Your task to perform on an android device: move a message to another label in the gmail app Image 0: 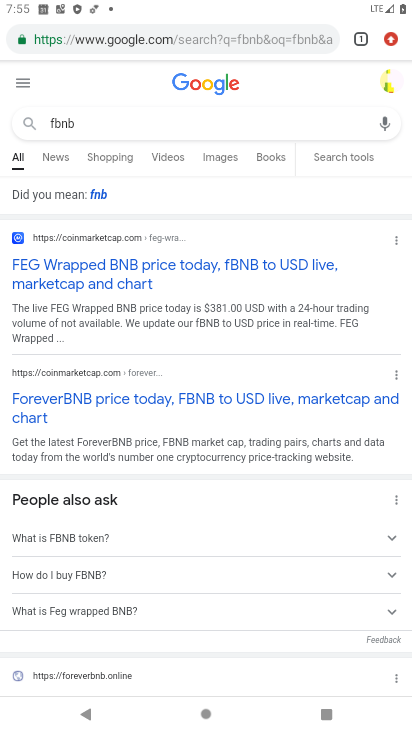
Step 0: press home button
Your task to perform on an android device: move a message to another label in the gmail app Image 1: 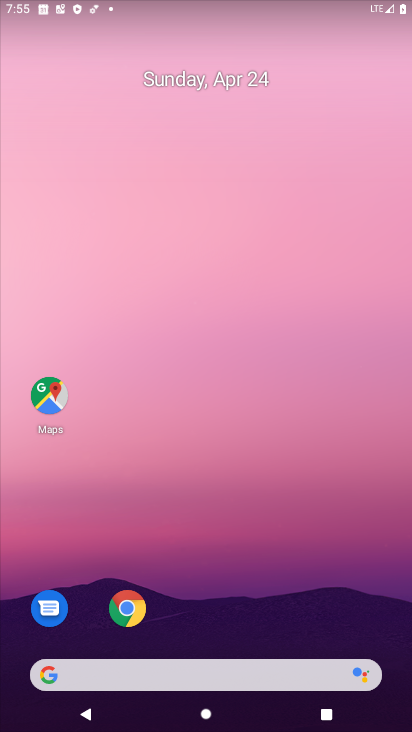
Step 1: drag from (186, 659) to (197, 112)
Your task to perform on an android device: move a message to another label in the gmail app Image 2: 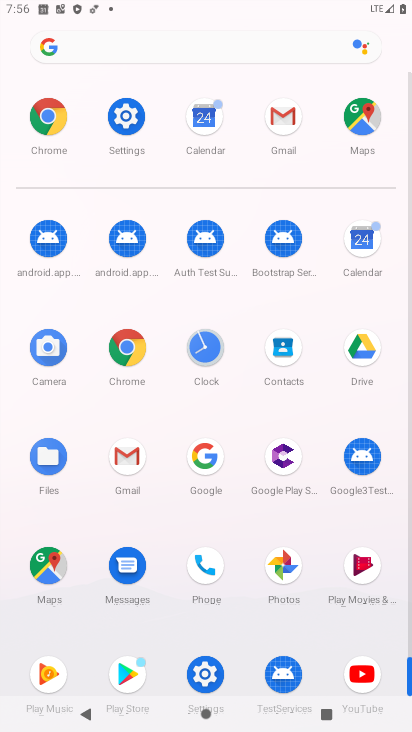
Step 2: click (281, 111)
Your task to perform on an android device: move a message to another label in the gmail app Image 3: 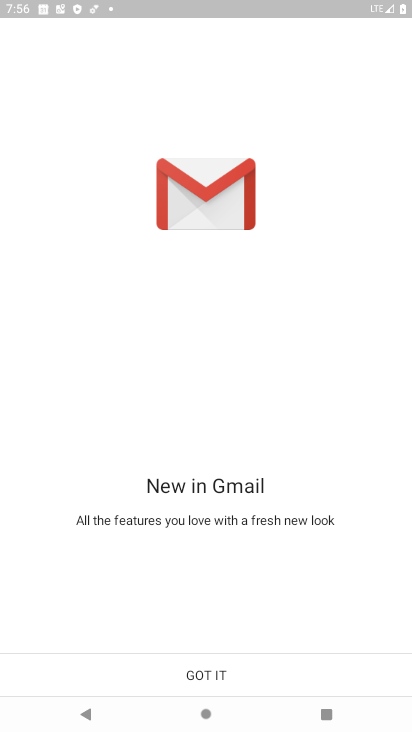
Step 3: click (259, 693)
Your task to perform on an android device: move a message to another label in the gmail app Image 4: 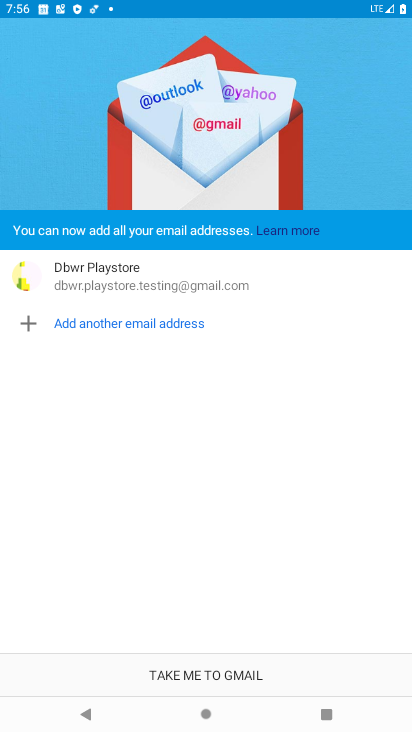
Step 4: click (258, 692)
Your task to perform on an android device: move a message to another label in the gmail app Image 5: 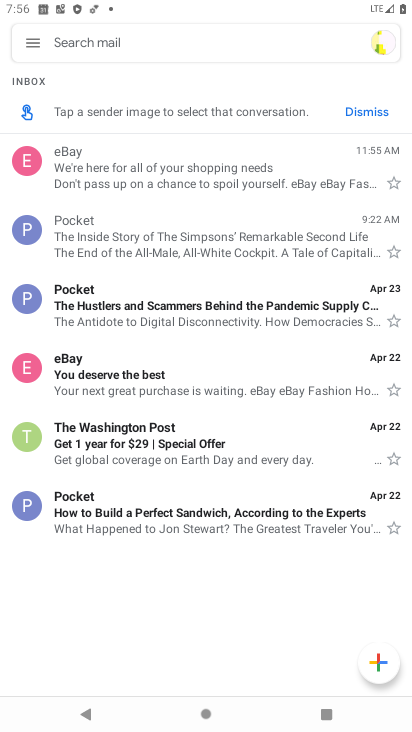
Step 5: click (29, 38)
Your task to perform on an android device: move a message to another label in the gmail app Image 6: 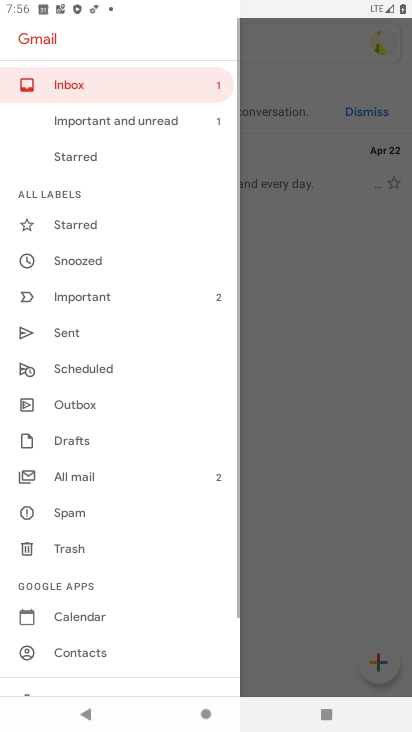
Step 6: click (374, 338)
Your task to perform on an android device: move a message to another label in the gmail app Image 7: 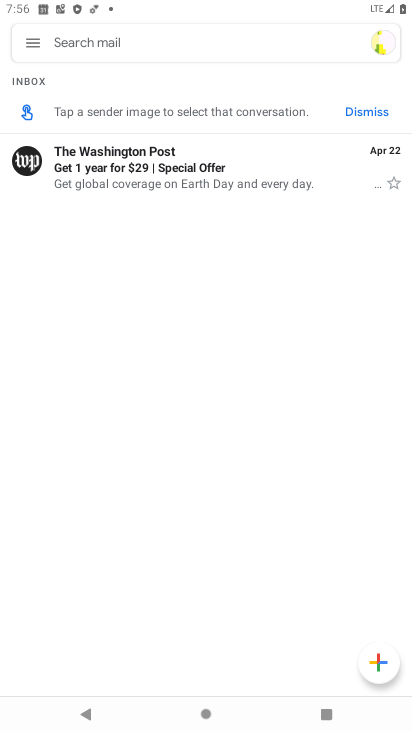
Step 7: click (289, 173)
Your task to perform on an android device: move a message to another label in the gmail app Image 8: 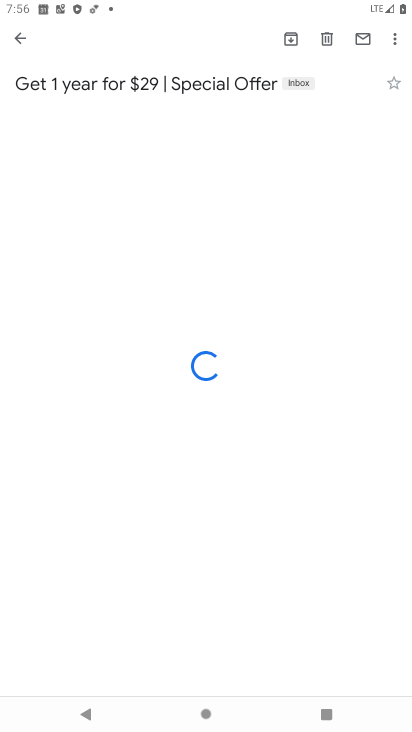
Step 8: click (394, 42)
Your task to perform on an android device: move a message to another label in the gmail app Image 9: 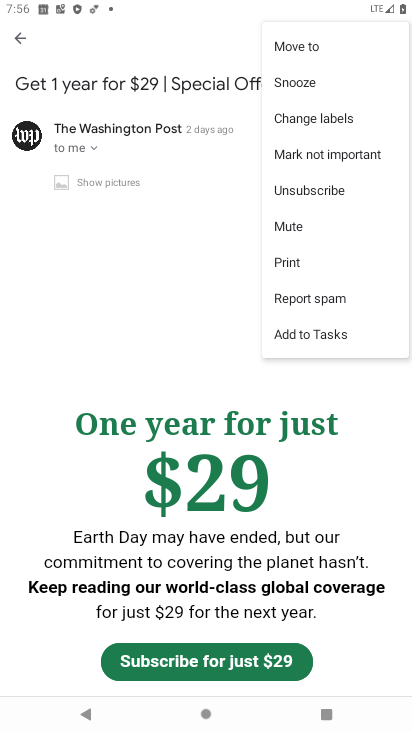
Step 9: click (330, 37)
Your task to perform on an android device: move a message to another label in the gmail app Image 10: 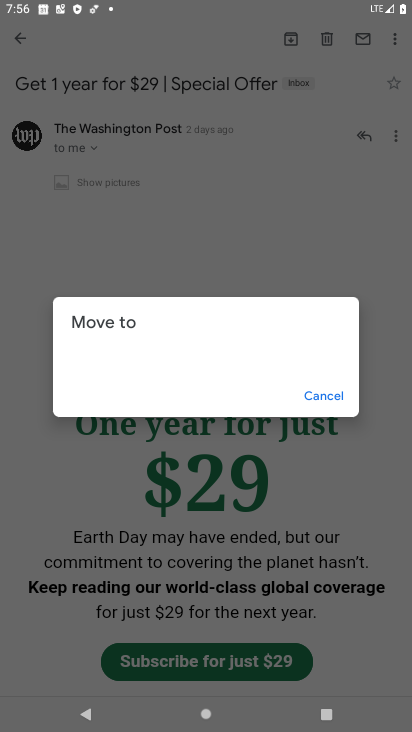
Step 10: click (330, 394)
Your task to perform on an android device: move a message to another label in the gmail app Image 11: 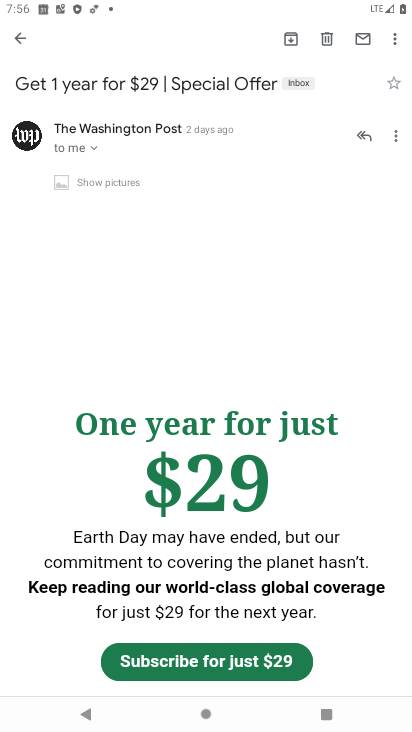
Step 11: click (24, 38)
Your task to perform on an android device: move a message to another label in the gmail app Image 12: 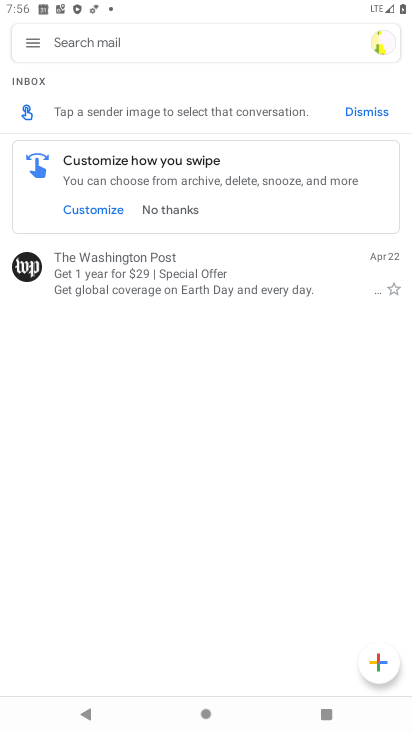
Step 12: click (225, 295)
Your task to perform on an android device: move a message to another label in the gmail app Image 13: 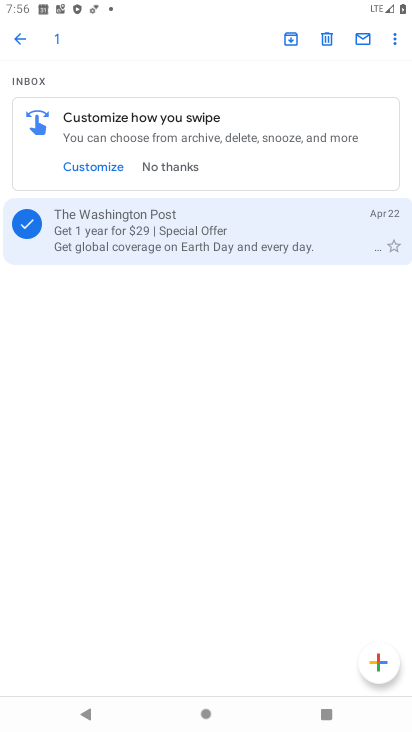
Step 13: click (393, 37)
Your task to perform on an android device: move a message to another label in the gmail app Image 14: 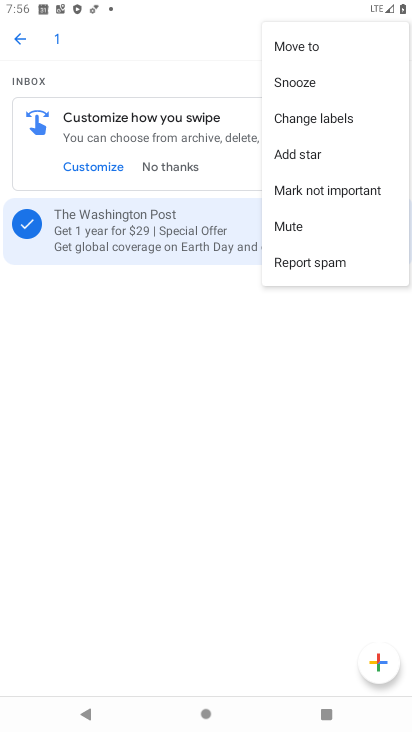
Step 14: click (310, 118)
Your task to perform on an android device: move a message to another label in the gmail app Image 15: 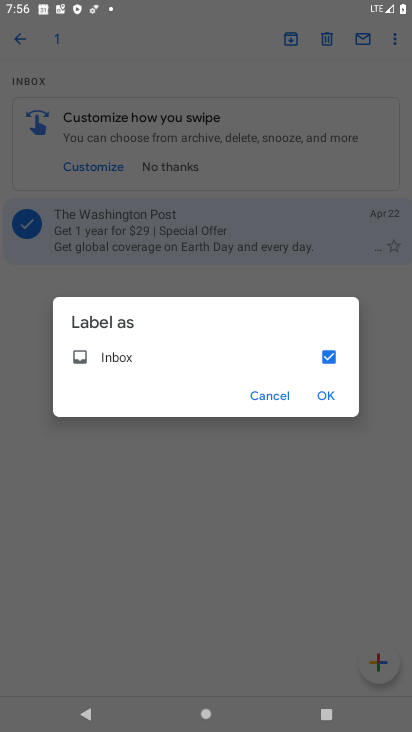
Step 15: click (326, 397)
Your task to perform on an android device: move a message to another label in the gmail app Image 16: 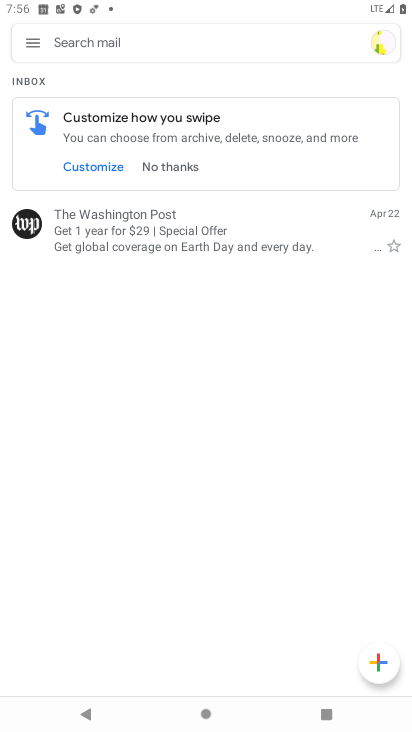
Step 16: task complete